Your task to perform on an android device: delete the emails in spam in the gmail app Image 0: 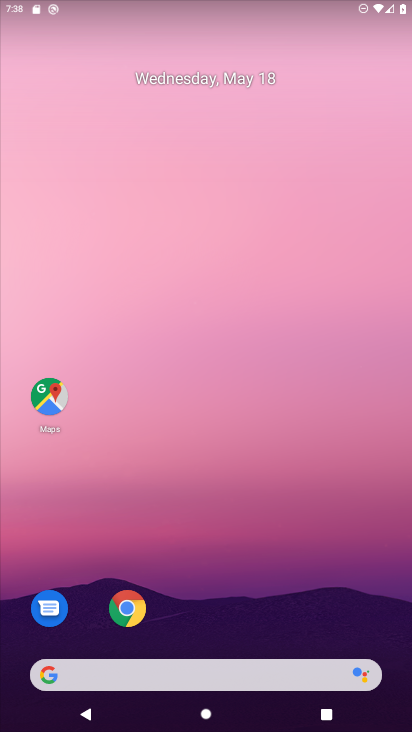
Step 0: drag from (332, 637) to (326, 190)
Your task to perform on an android device: delete the emails in spam in the gmail app Image 1: 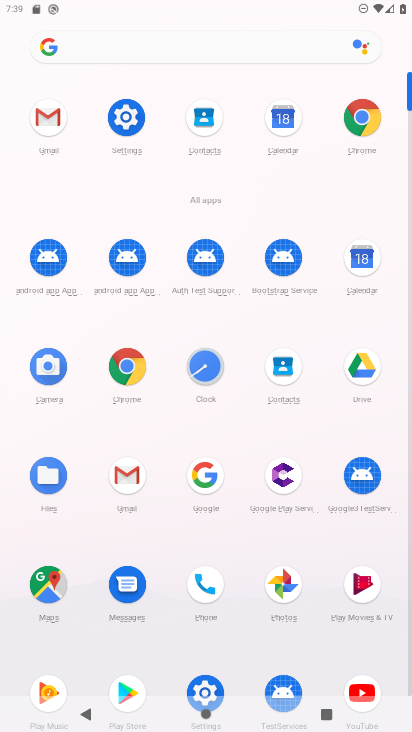
Step 1: click (123, 469)
Your task to perform on an android device: delete the emails in spam in the gmail app Image 2: 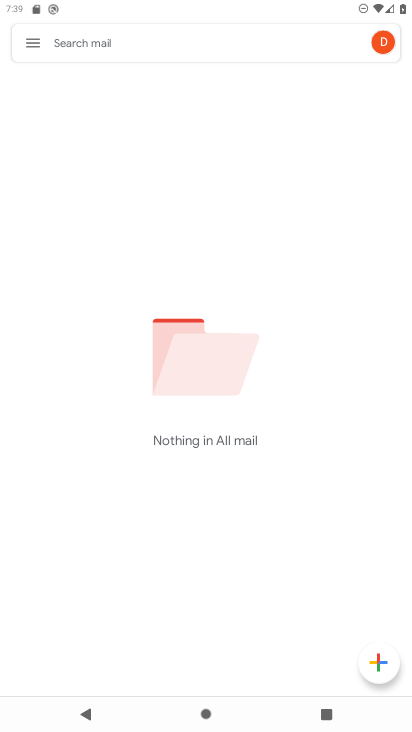
Step 2: click (35, 44)
Your task to perform on an android device: delete the emails in spam in the gmail app Image 3: 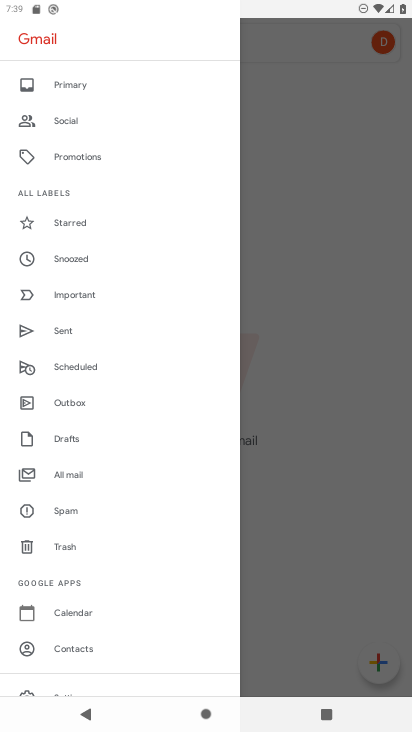
Step 3: click (63, 506)
Your task to perform on an android device: delete the emails in spam in the gmail app Image 4: 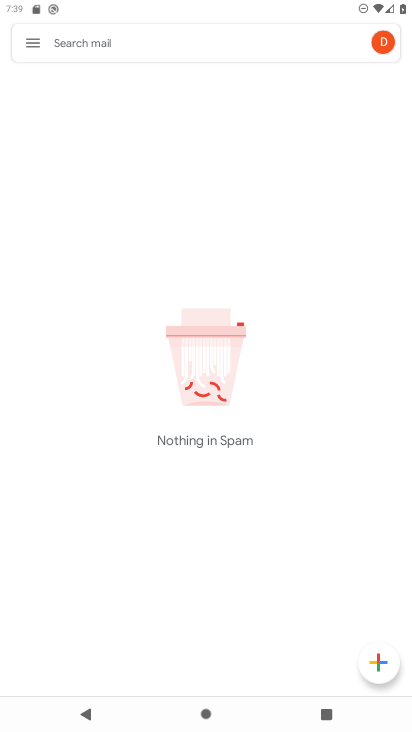
Step 4: task complete